Your task to perform on an android device: change your default location settings in chrome Image 0: 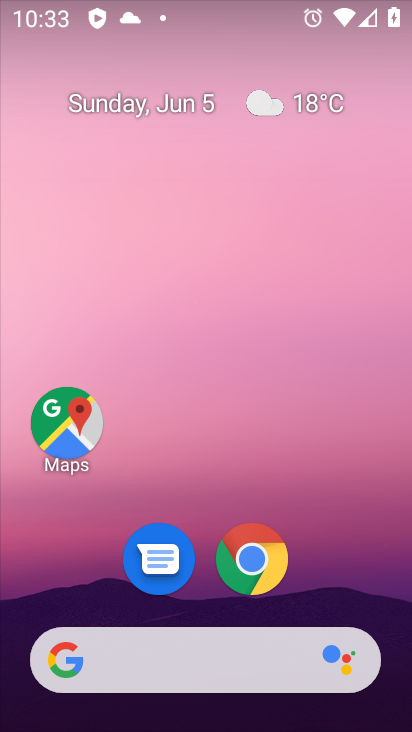
Step 0: click (254, 564)
Your task to perform on an android device: change your default location settings in chrome Image 1: 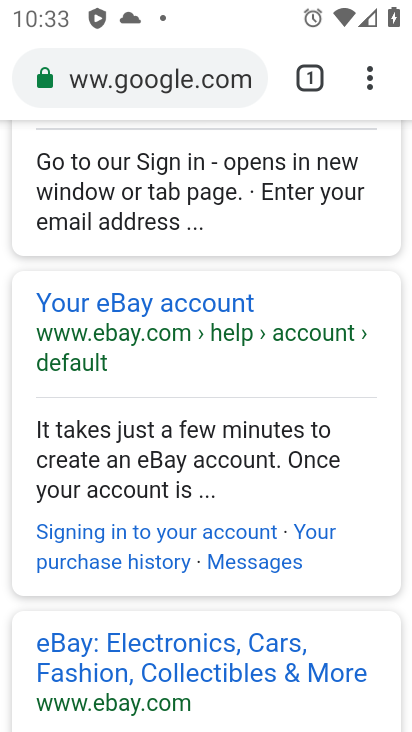
Step 1: click (247, 80)
Your task to perform on an android device: change your default location settings in chrome Image 2: 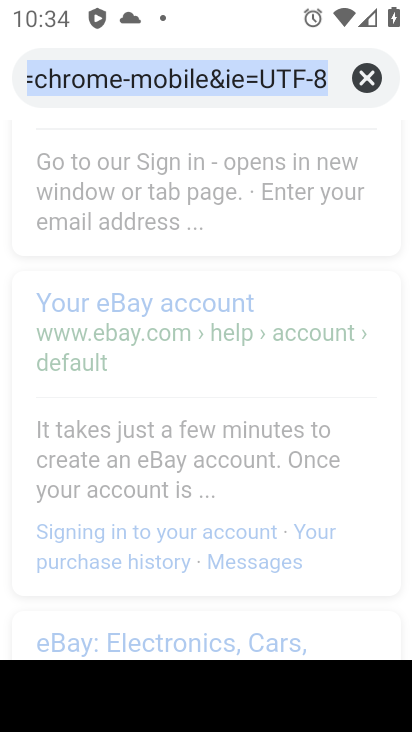
Step 2: drag from (335, 76) to (248, 71)
Your task to perform on an android device: change your default location settings in chrome Image 3: 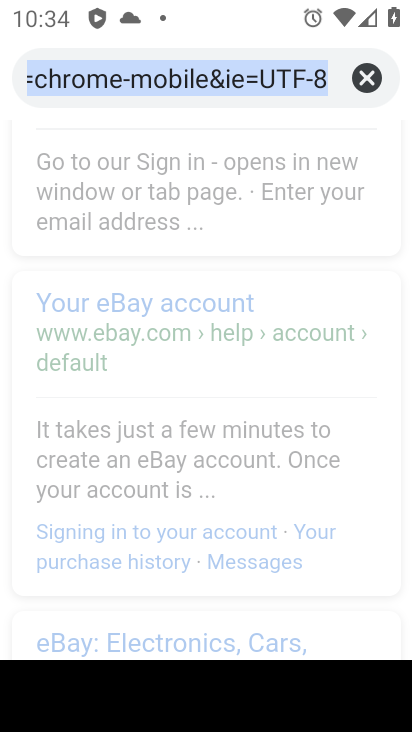
Step 3: click (345, 76)
Your task to perform on an android device: change your default location settings in chrome Image 4: 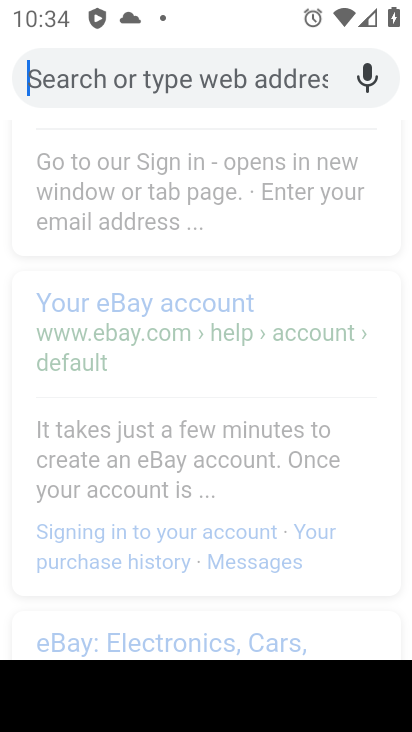
Step 4: click (361, 71)
Your task to perform on an android device: change your default location settings in chrome Image 5: 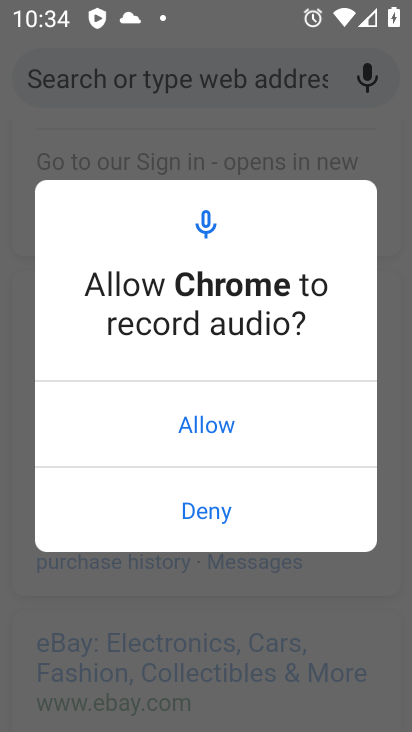
Step 5: click (216, 517)
Your task to perform on an android device: change your default location settings in chrome Image 6: 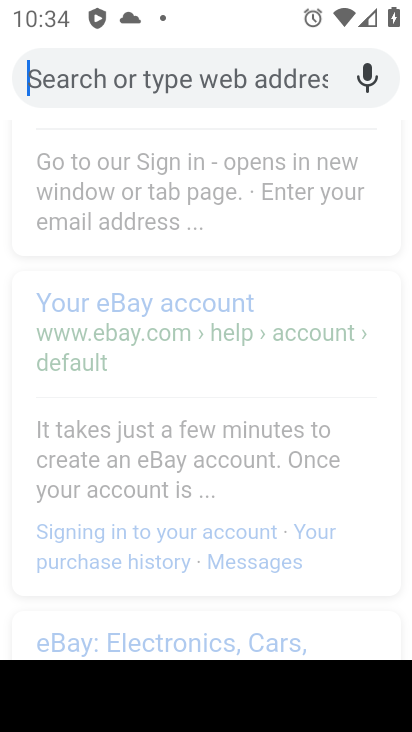
Step 6: press back button
Your task to perform on an android device: change your default location settings in chrome Image 7: 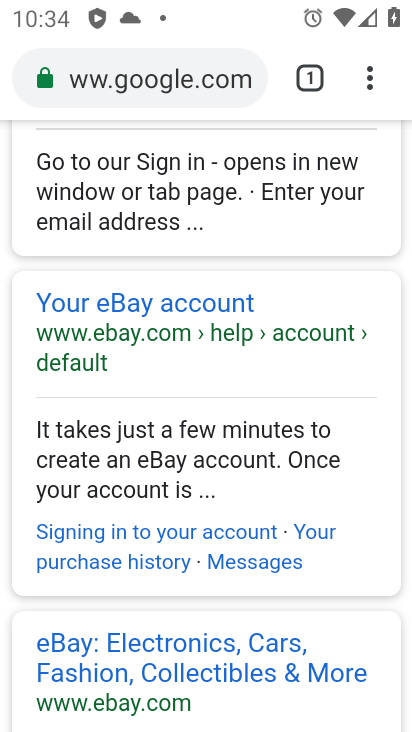
Step 7: click (368, 66)
Your task to perform on an android device: change your default location settings in chrome Image 8: 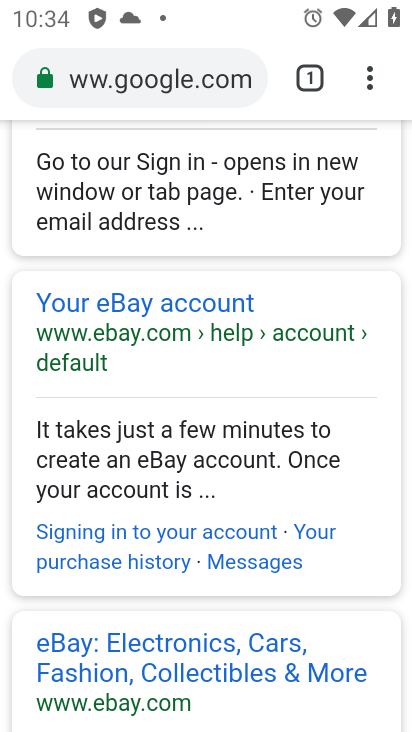
Step 8: click (367, 73)
Your task to perform on an android device: change your default location settings in chrome Image 9: 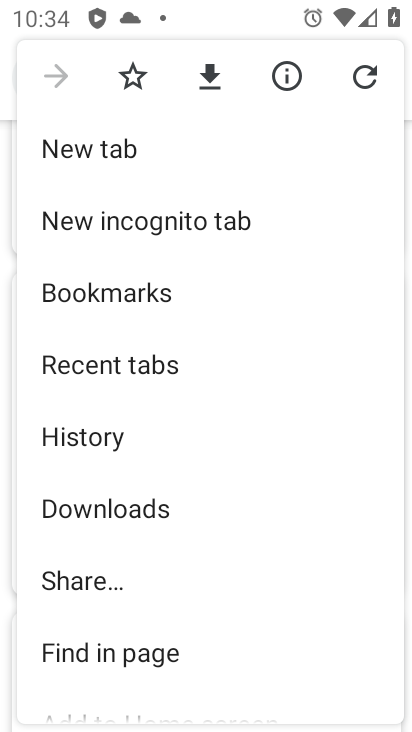
Step 9: drag from (281, 655) to (274, 249)
Your task to perform on an android device: change your default location settings in chrome Image 10: 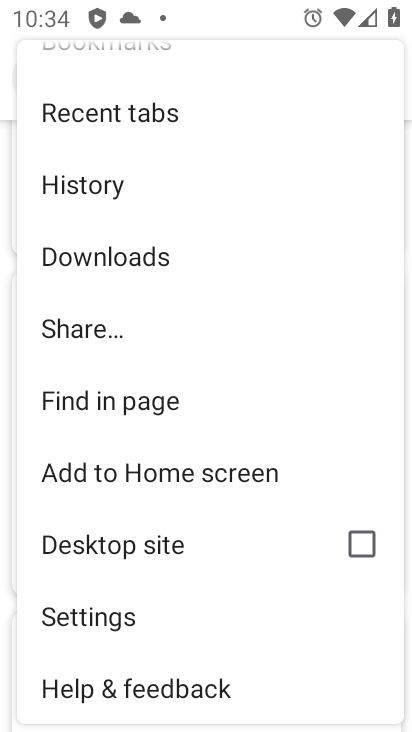
Step 10: click (109, 612)
Your task to perform on an android device: change your default location settings in chrome Image 11: 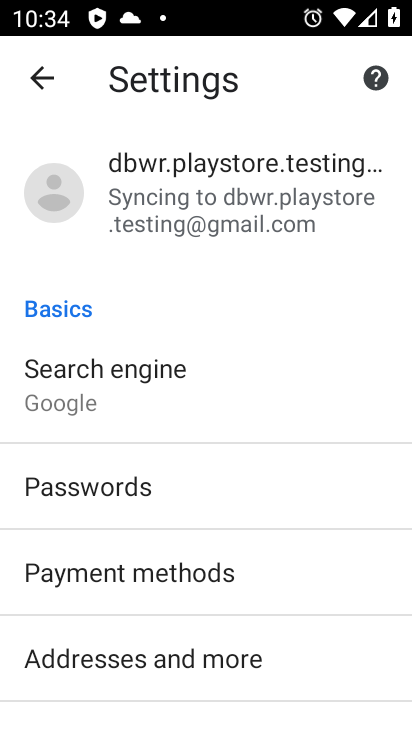
Step 11: drag from (203, 715) to (188, 191)
Your task to perform on an android device: change your default location settings in chrome Image 12: 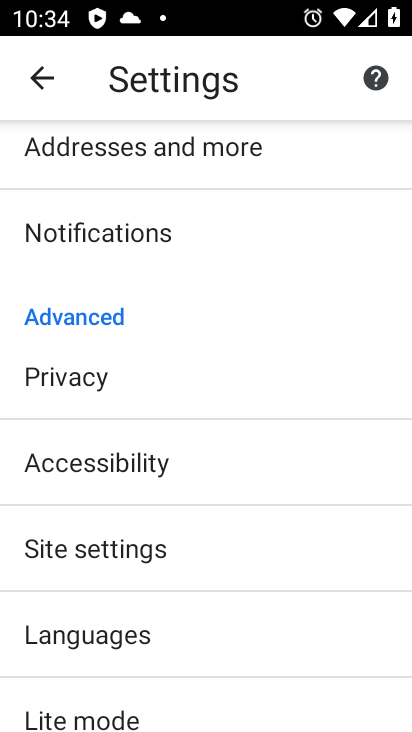
Step 12: click (108, 550)
Your task to perform on an android device: change your default location settings in chrome Image 13: 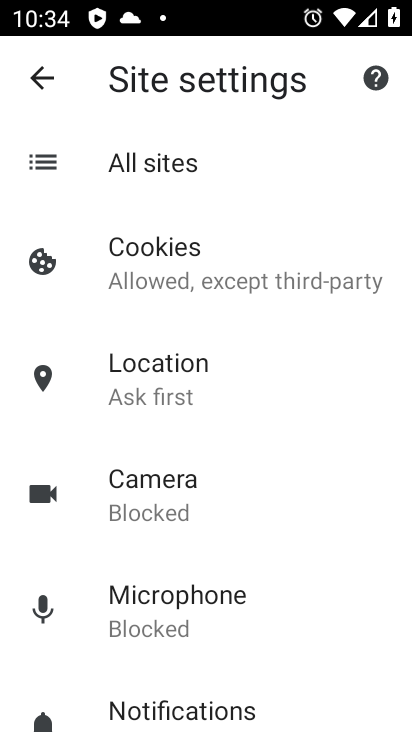
Step 13: click (148, 380)
Your task to perform on an android device: change your default location settings in chrome Image 14: 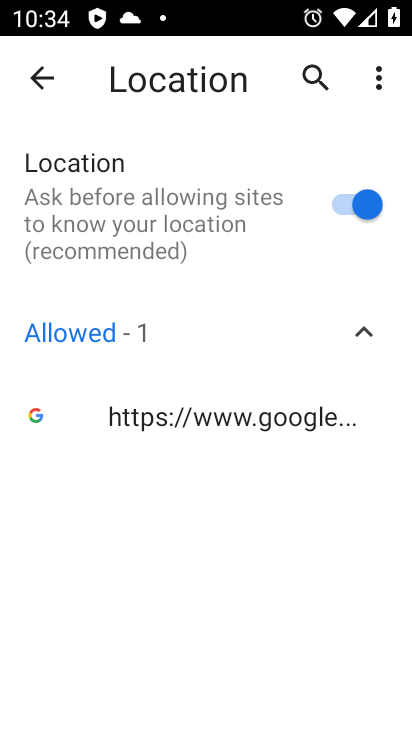
Step 14: click (342, 204)
Your task to perform on an android device: change your default location settings in chrome Image 15: 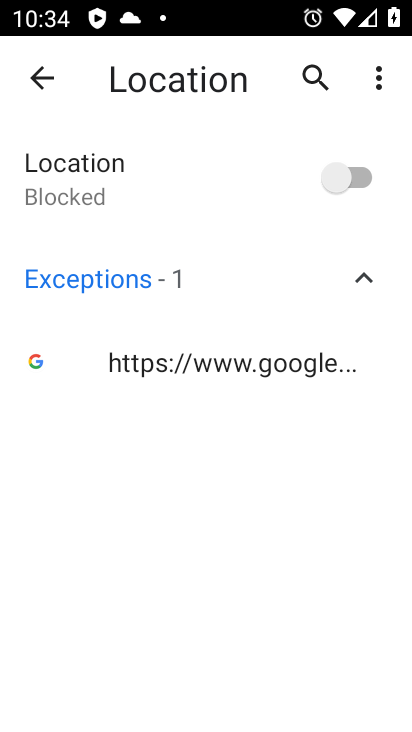
Step 15: task complete